Your task to perform on an android device: star an email in the gmail app Image 0: 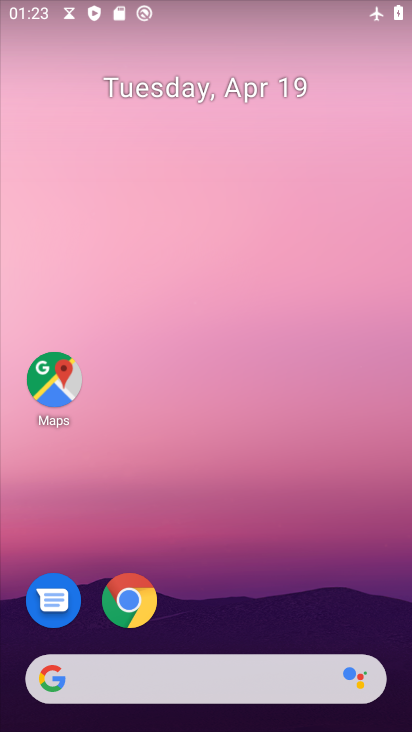
Step 0: drag from (233, 647) to (233, 76)
Your task to perform on an android device: star an email in the gmail app Image 1: 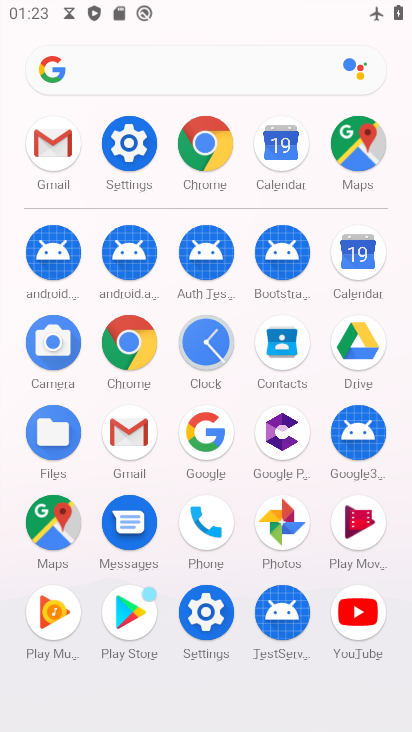
Step 1: click (122, 448)
Your task to perform on an android device: star an email in the gmail app Image 2: 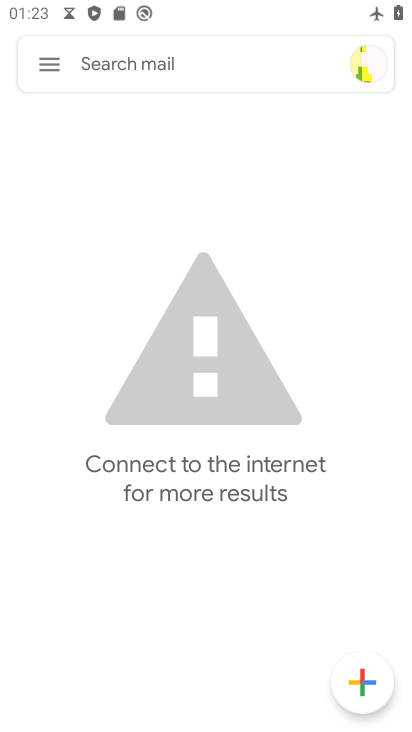
Step 2: click (49, 70)
Your task to perform on an android device: star an email in the gmail app Image 3: 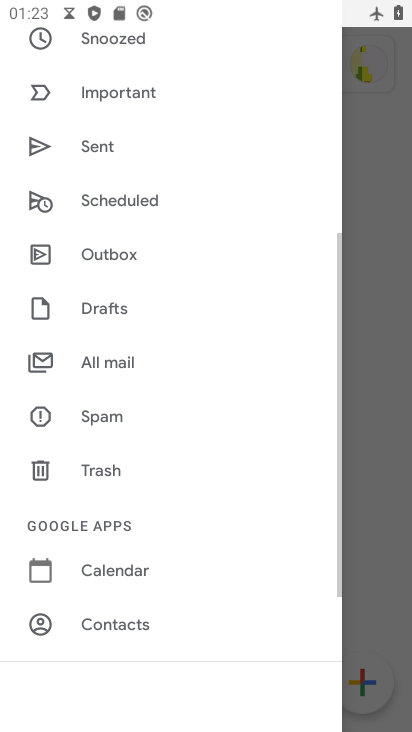
Step 3: drag from (62, 112) to (54, 506)
Your task to perform on an android device: star an email in the gmail app Image 4: 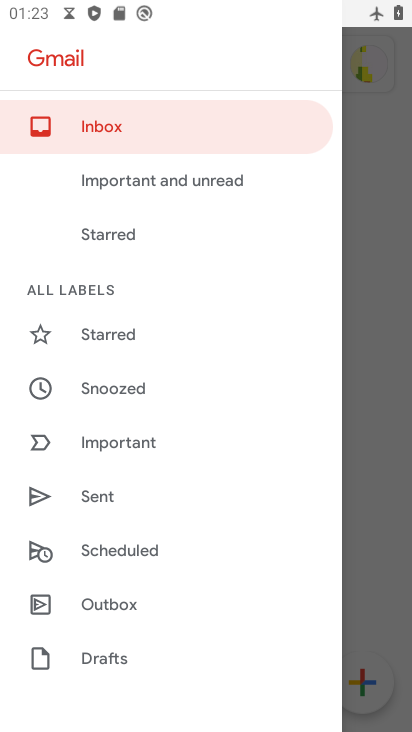
Step 4: click (72, 130)
Your task to perform on an android device: star an email in the gmail app Image 5: 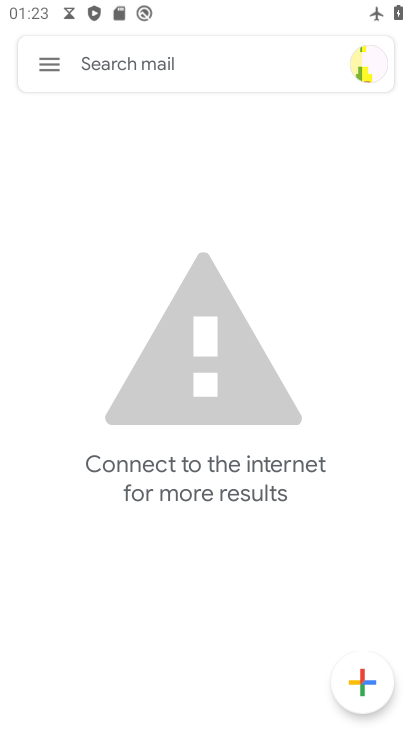
Step 5: task complete